Your task to perform on an android device: Go to eBay Image 0: 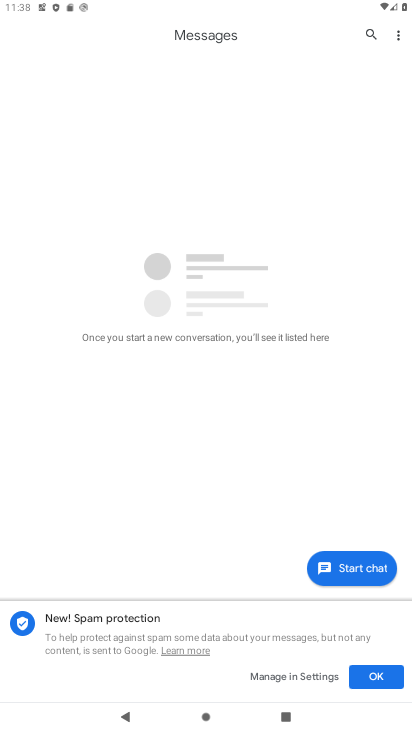
Step 0: press home button
Your task to perform on an android device: Go to eBay Image 1: 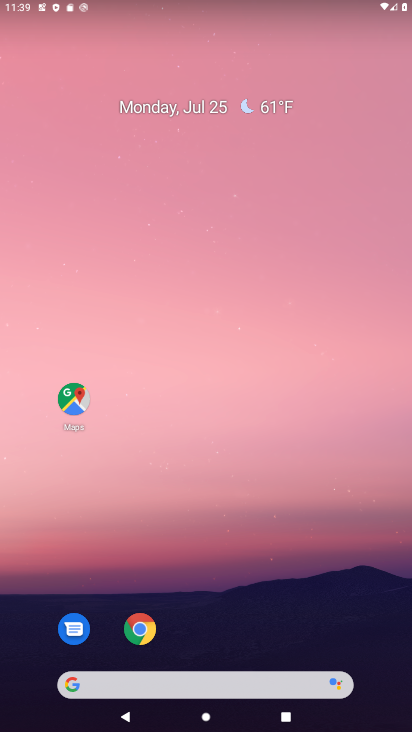
Step 1: click (148, 636)
Your task to perform on an android device: Go to eBay Image 2: 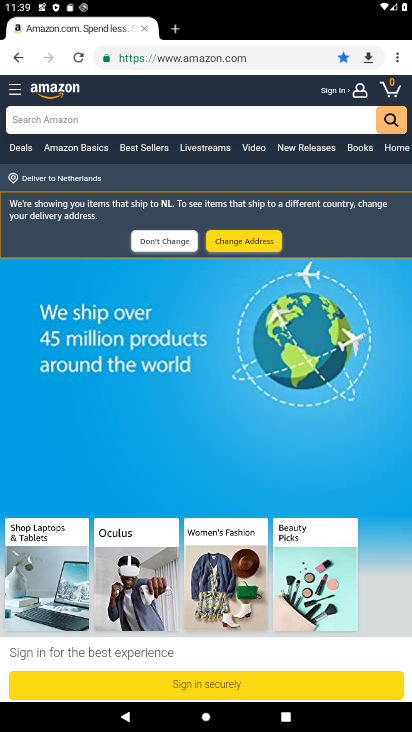
Step 2: click (392, 51)
Your task to perform on an android device: Go to eBay Image 3: 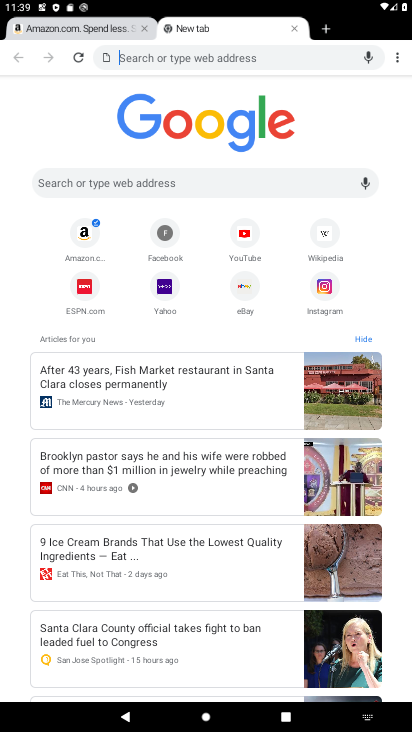
Step 3: click (398, 57)
Your task to perform on an android device: Go to eBay Image 4: 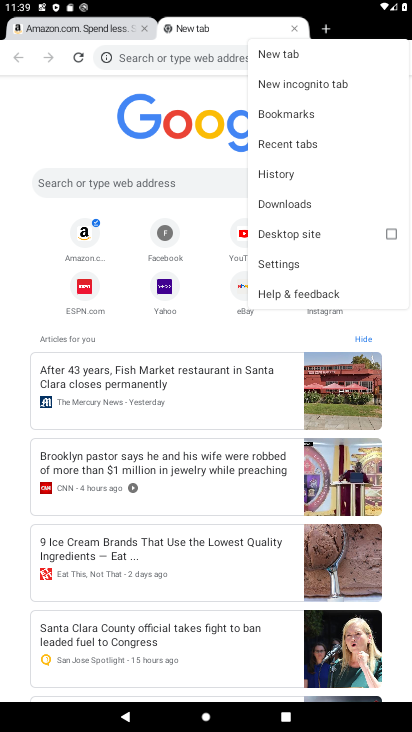
Step 4: click (8, 258)
Your task to perform on an android device: Go to eBay Image 5: 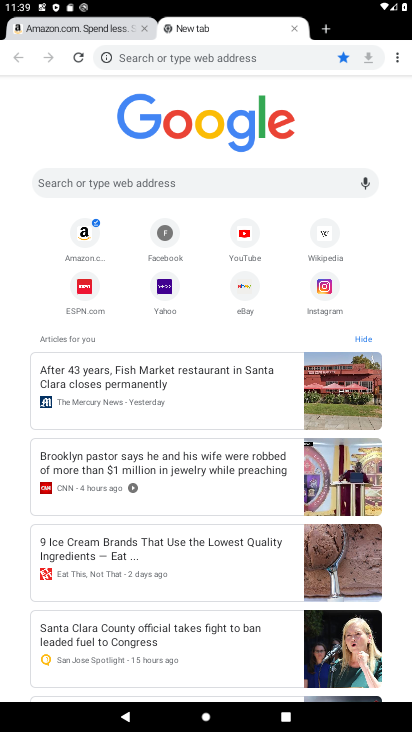
Step 5: click (227, 293)
Your task to perform on an android device: Go to eBay Image 6: 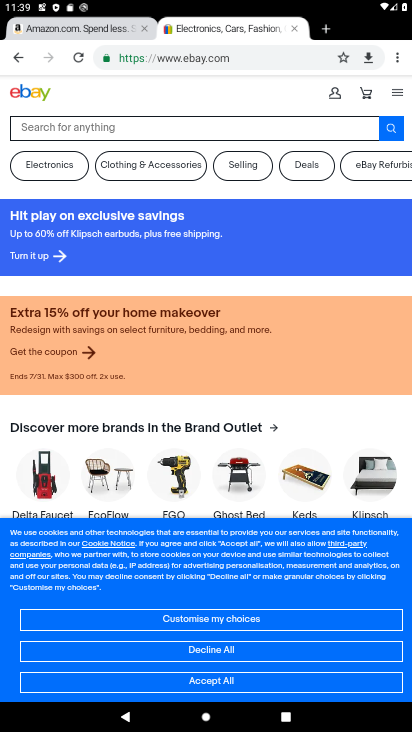
Step 6: task complete